Your task to perform on an android device: change notification settings in the gmail app Image 0: 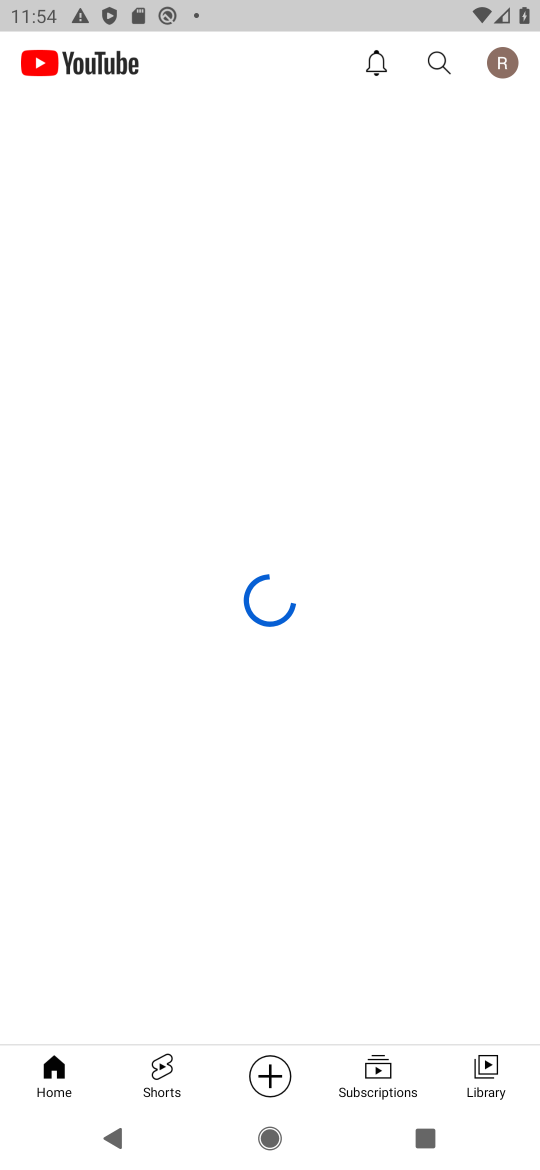
Step 0: drag from (394, 19) to (351, 768)
Your task to perform on an android device: change notification settings in the gmail app Image 1: 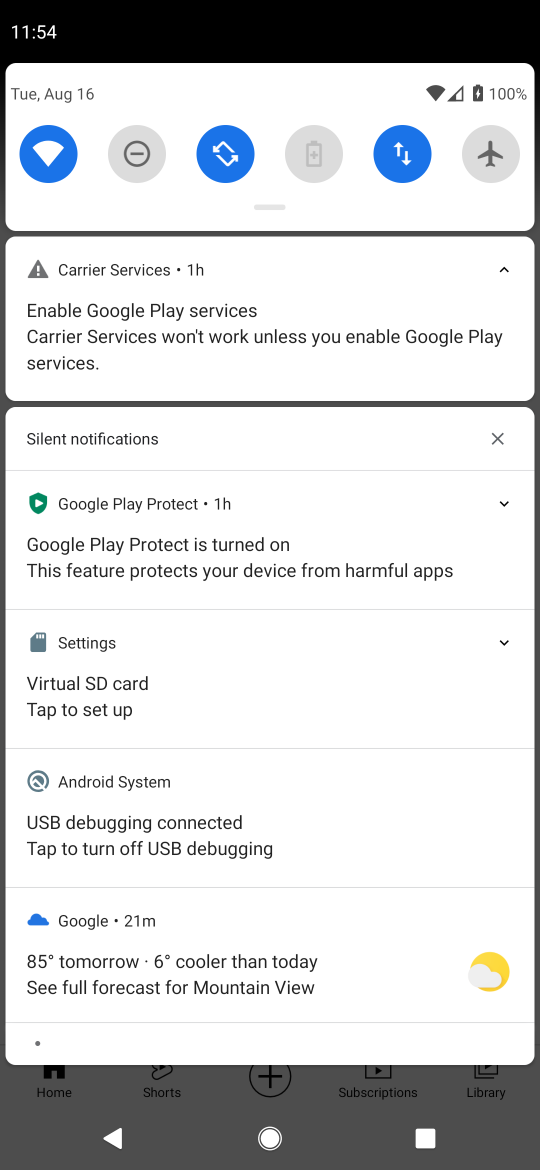
Step 1: task complete